Your task to perform on an android device: Open Chrome and go to settings Image 0: 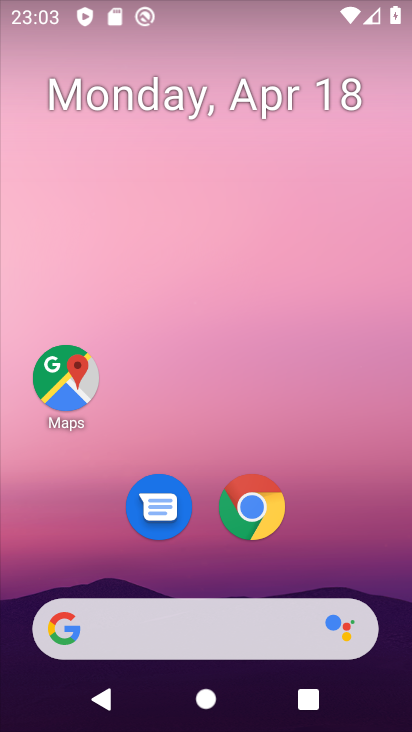
Step 0: click (263, 508)
Your task to perform on an android device: Open Chrome and go to settings Image 1: 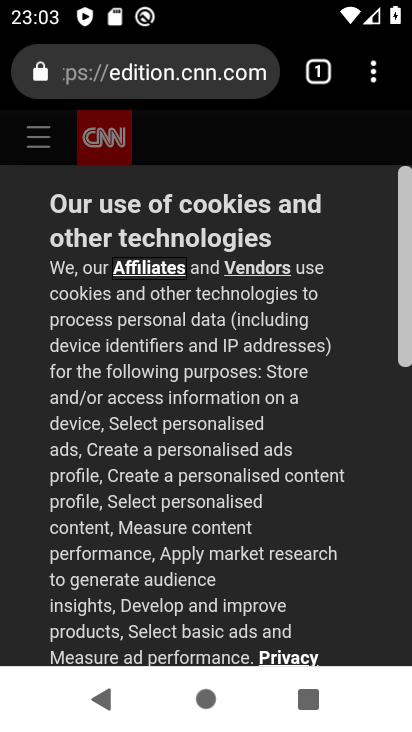
Step 1: click (372, 79)
Your task to perform on an android device: Open Chrome and go to settings Image 2: 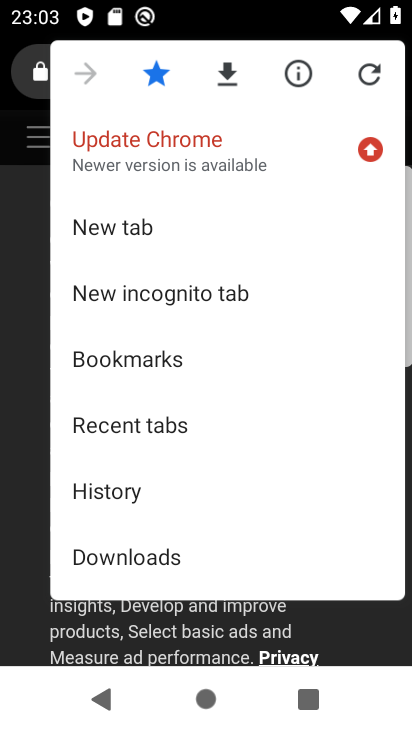
Step 2: drag from (242, 489) to (278, 193)
Your task to perform on an android device: Open Chrome and go to settings Image 3: 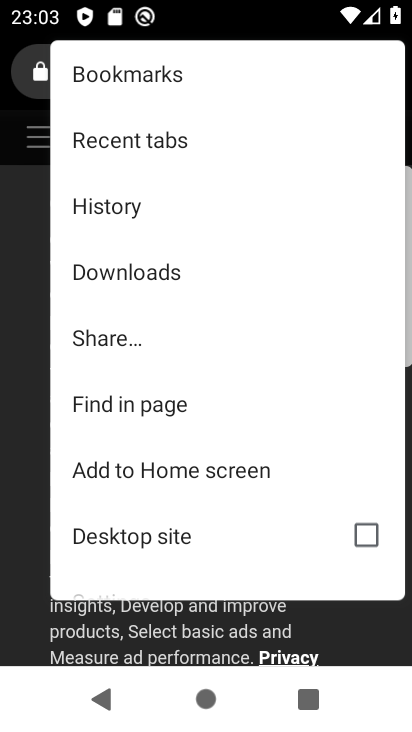
Step 3: drag from (240, 521) to (268, 154)
Your task to perform on an android device: Open Chrome and go to settings Image 4: 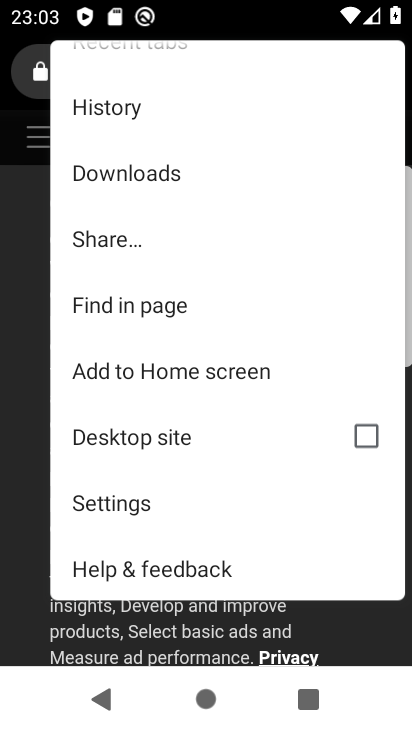
Step 4: click (149, 495)
Your task to perform on an android device: Open Chrome and go to settings Image 5: 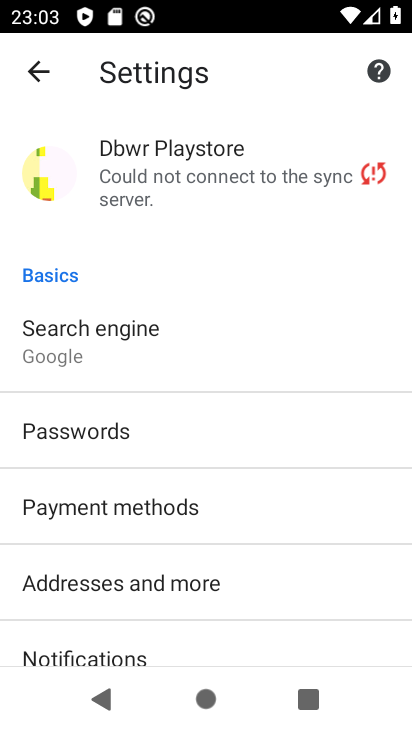
Step 5: task complete